Your task to perform on an android device: change timer sound Image 0: 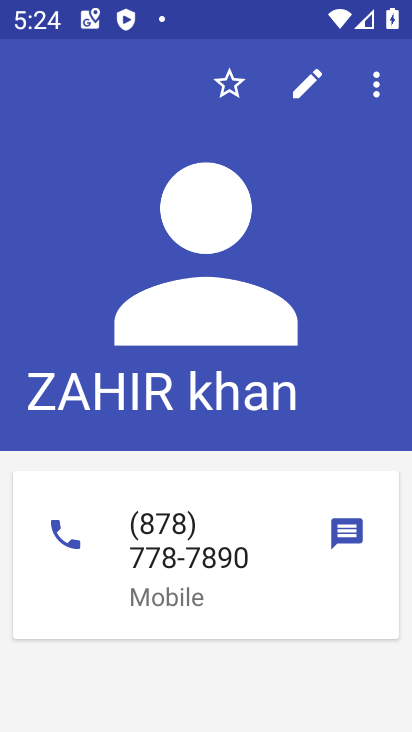
Step 0: press home button
Your task to perform on an android device: change timer sound Image 1: 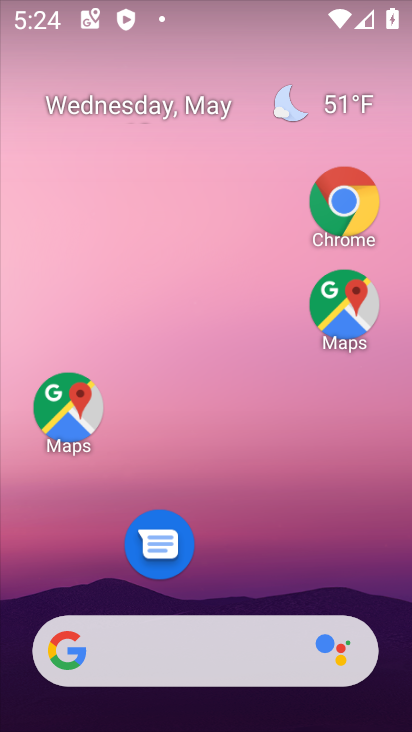
Step 1: drag from (244, 545) to (199, 172)
Your task to perform on an android device: change timer sound Image 2: 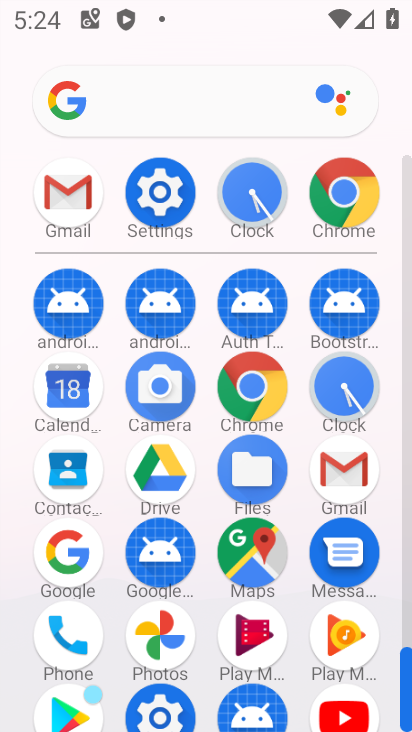
Step 2: click (352, 401)
Your task to perform on an android device: change timer sound Image 3: 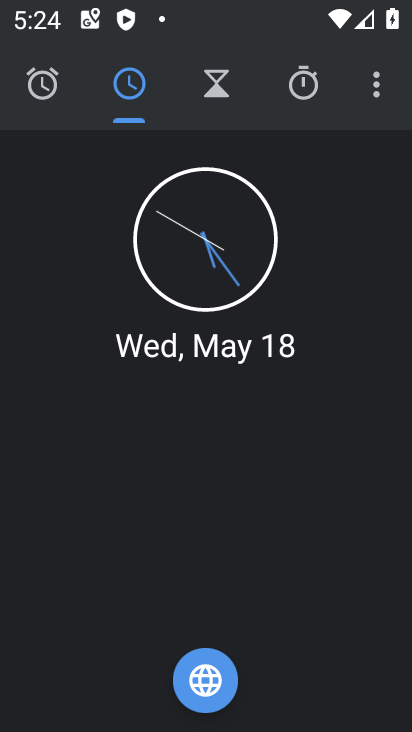
Step 3: click (380, 87)
Your task to perform on an android device: change timer sound Image 4: 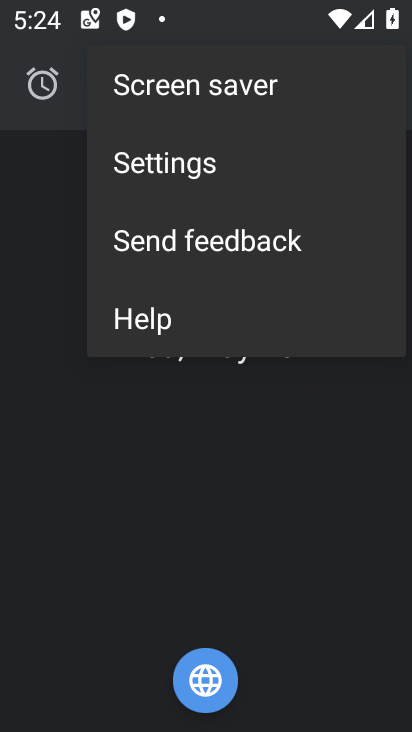
Step 4: click (197, 161)
Your task to perform on an android device: change timer sound Image 5: 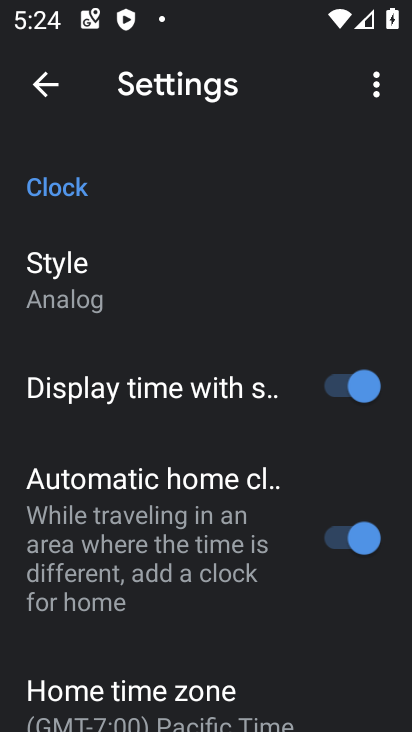
Step 5: drag from (209, 598) to (213, 303)
Your task to perform on an android device: change timer sound Image 6: 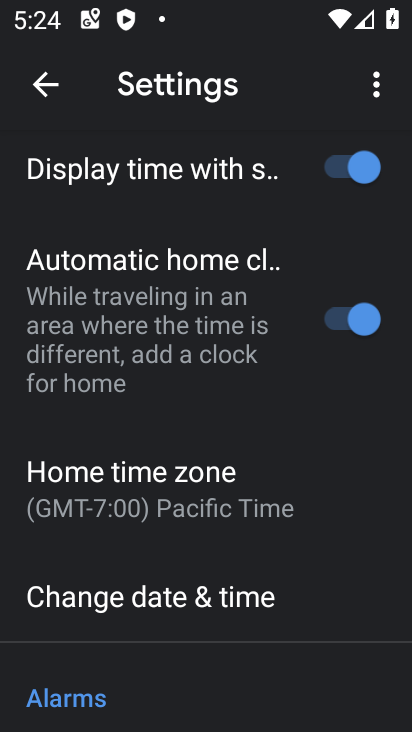
Step 6: drag from (179, 645) to (197, 329)
Your task to perform on an android device: change timer sound Image 7: 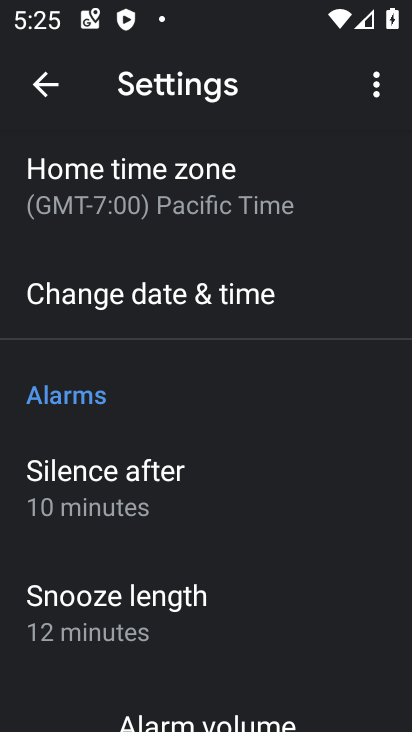
Step 7: drag from (267, 571) to (275, 302)
Your task to perform on an android device: change timer sound Image 8: 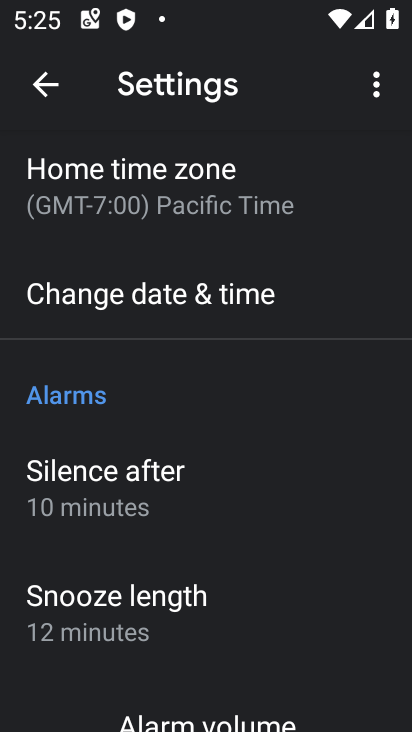
Step 8: drag from (217, 541) to (242, 209)
Your task to perform on an android device: change timer sound Image 9: 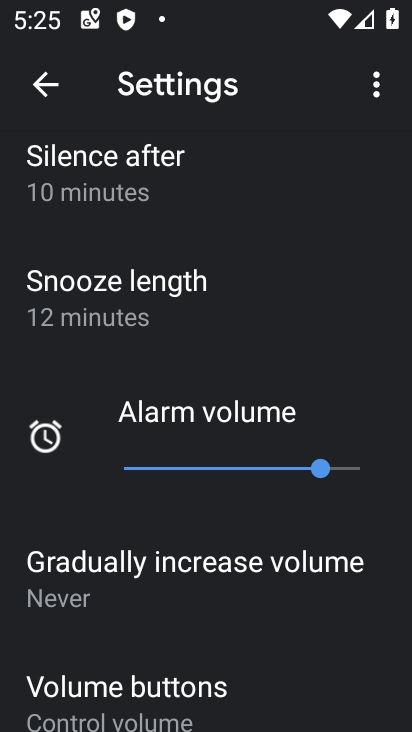
Step 9: drag from (214, 587) to (265, 242)
Your task to perform on an android device: change timer sound Image 10: 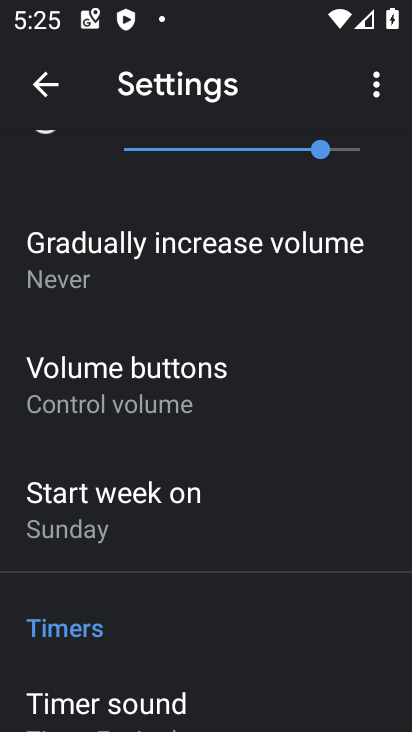
Step 10: drag from (176, 566) to (245, 202)
Your task to perform on an android device: change timer sound Image 11: 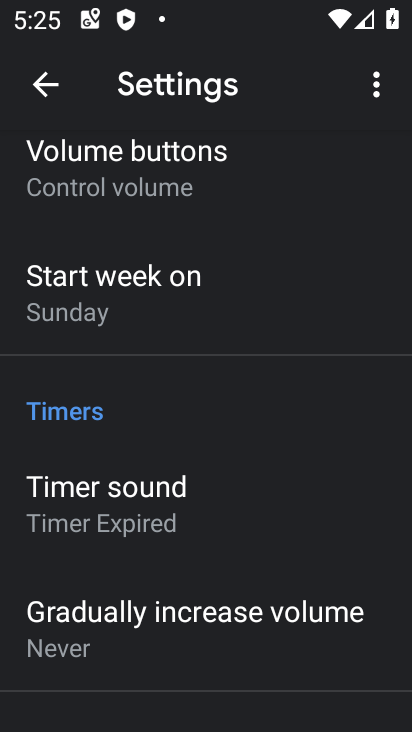
Step 11: click (142, 492)
Your task to perform on an android device: change timer sound Image 12: 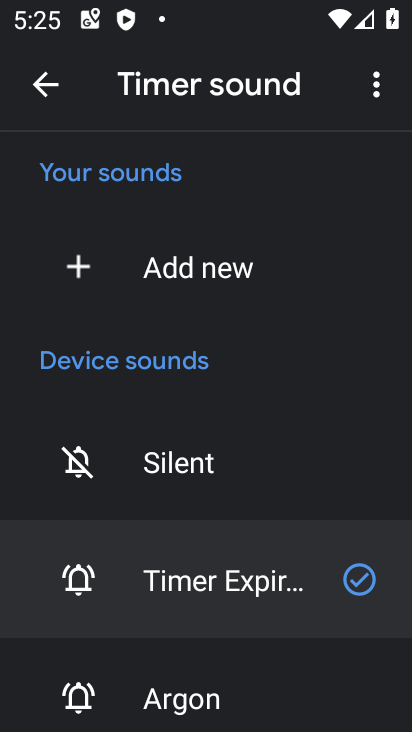
Step 12: click (162, 698)
Your task to perform on an android device: change timer sound Image 13: 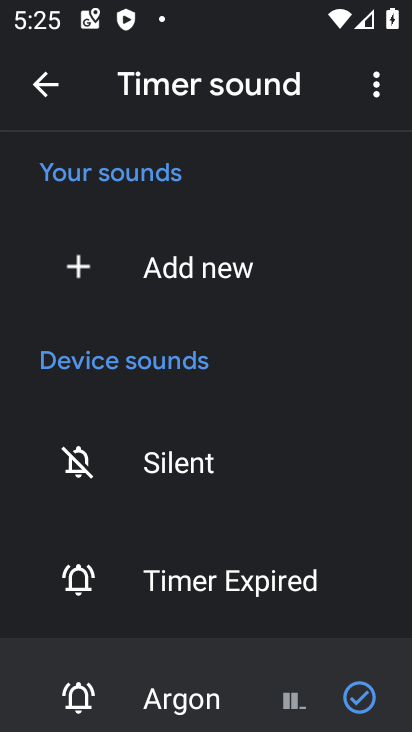
Step 13: task complete